Your task to perform on an android device: Go to settings Image 0: 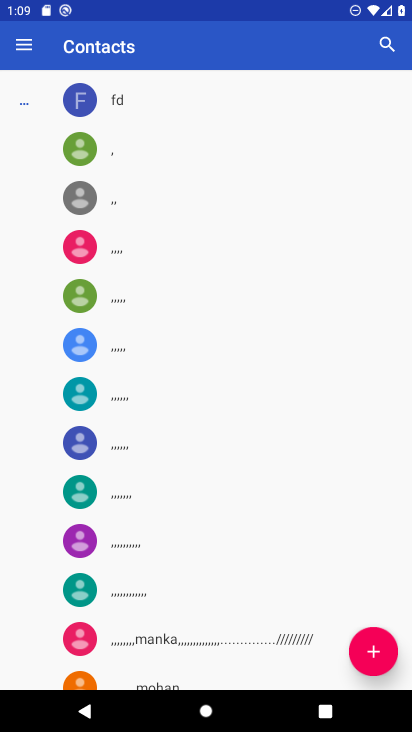
Step 0: press home button
Your task to perform on an android device: Go to settings Image 1: 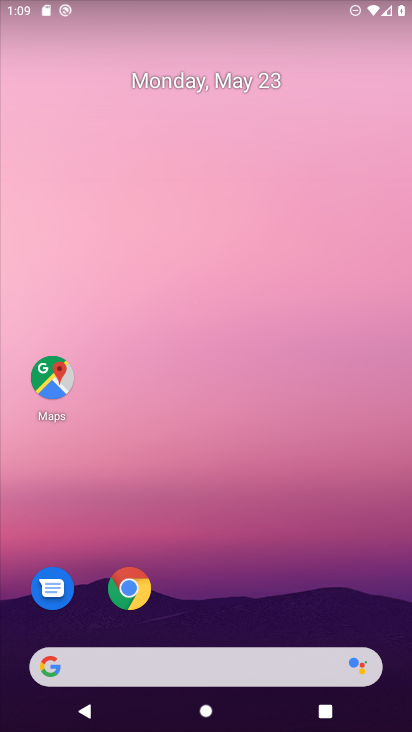
Step 1: click (170, 230)
Your task to perform on an android device: Go to settings Image 2: 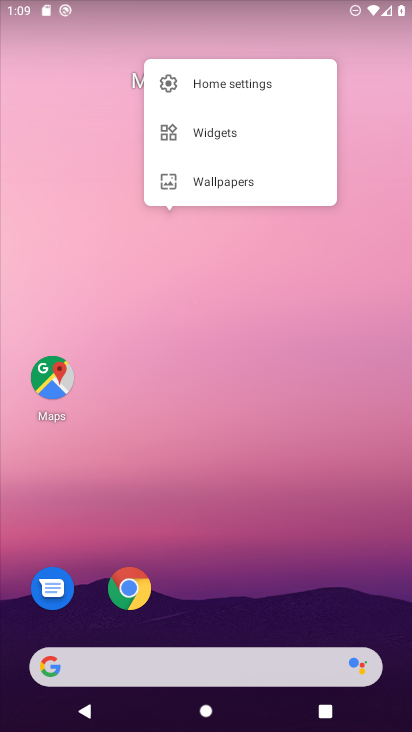
Step 2: click (136, 276)
Your task to perform on an android device: Go to settings Image 3: 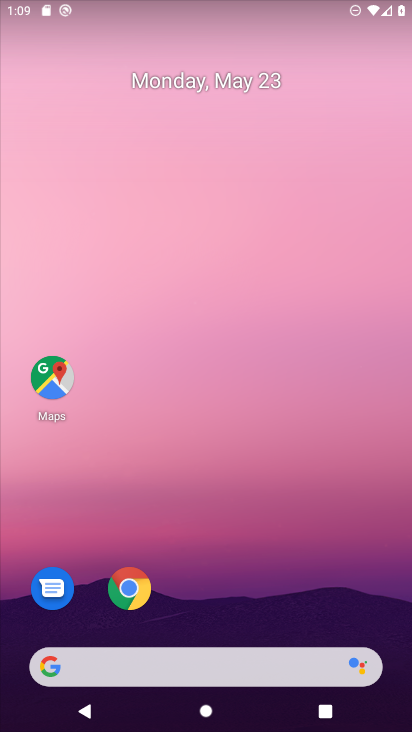
Step 3: drag from (279, 648) to (270, 172)
Your task to perform on an android device: Go to settings Image 4: 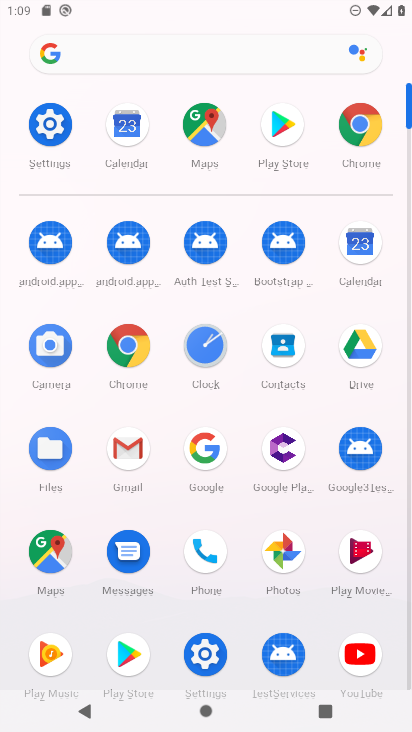
Step 4: click (39, 127)
Your task to perform on an android device: Go to settings Image 5: 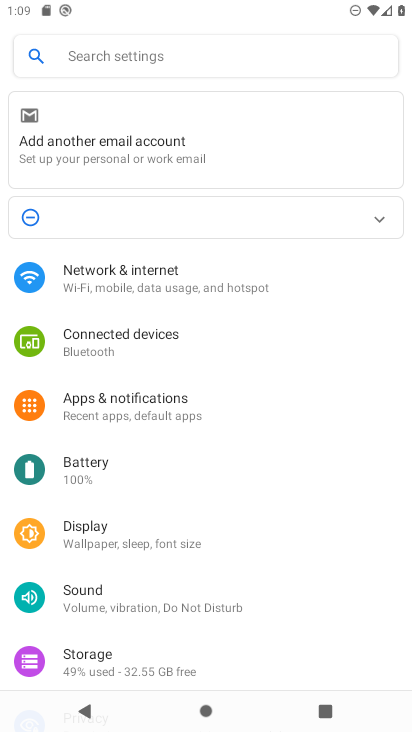
Step 5: task complete